Your task to perform on an android device: View the shopping cart on amazon. Add logitech g502 to the cart on amazon, then select checkout. Image 0: 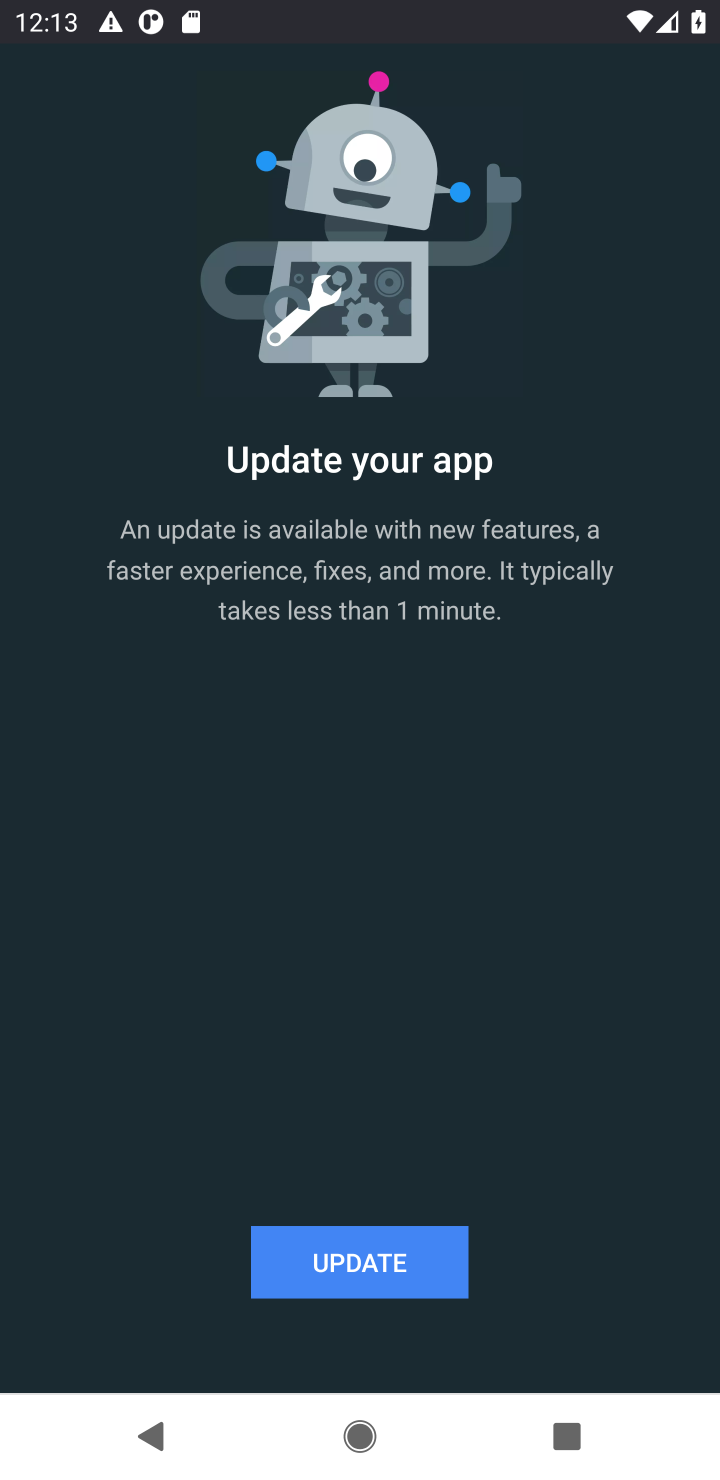
Step 0: press home button
Your task to perform on an android device: View the shopping cart on amazon. Add logitech g502 to the cart on amazon, then select checkout. Image 1: 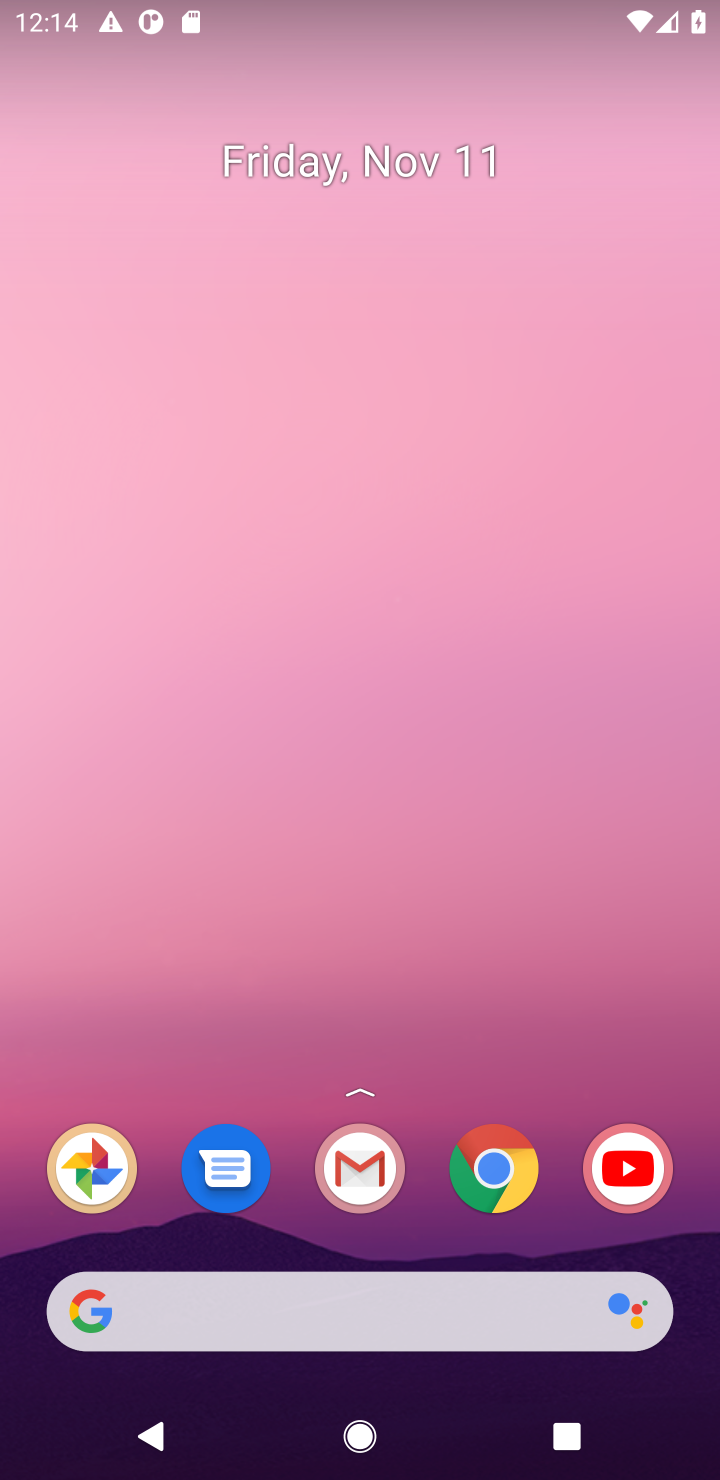
Step 1: click (498, 1179)
Your task to perform on an android device: View the shopping cart on amazon. Add logitech g502 to the cart on amazon, then select checkout. Image 2: 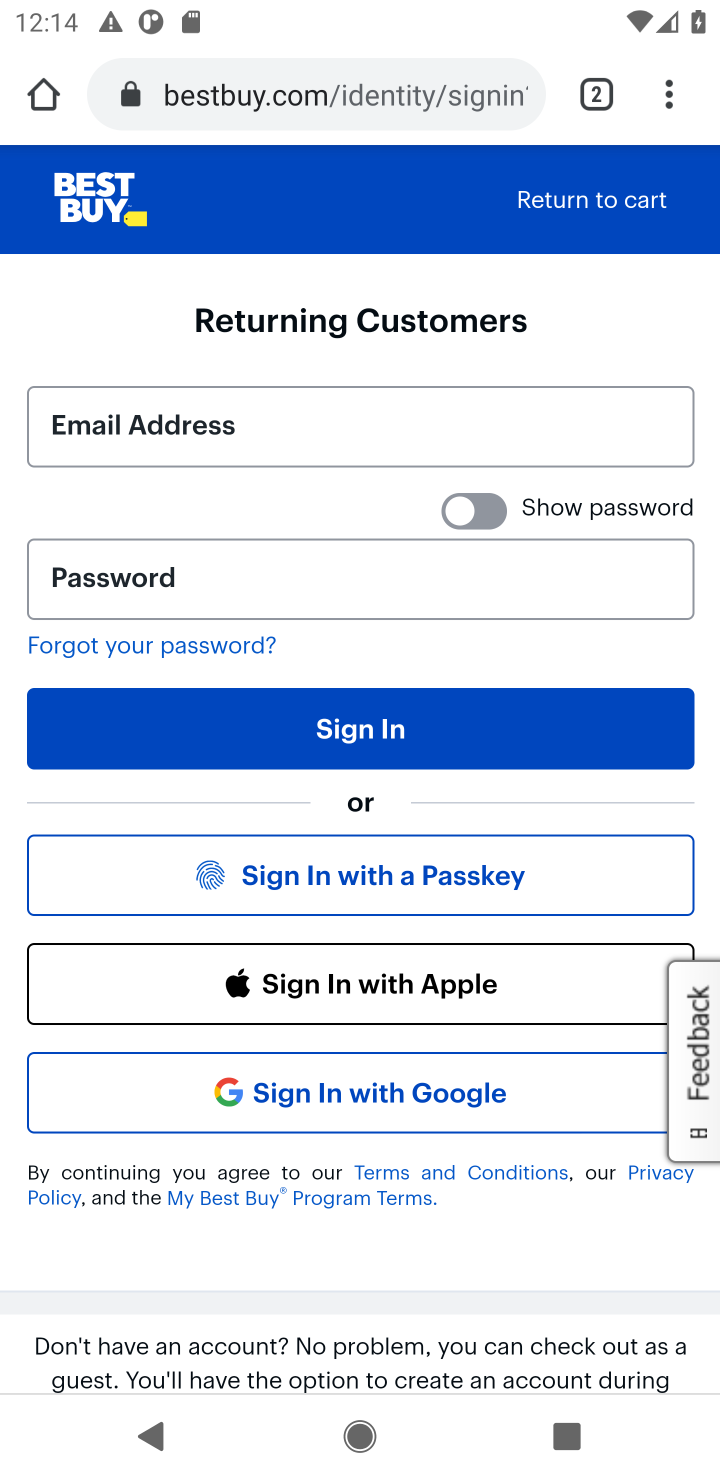
Step 2: click (319, 99)
Your task to perform on an android device: View the shopping cart on amazon. Add logitech g502 to the cart on amazon, then select checkout. Image 3: 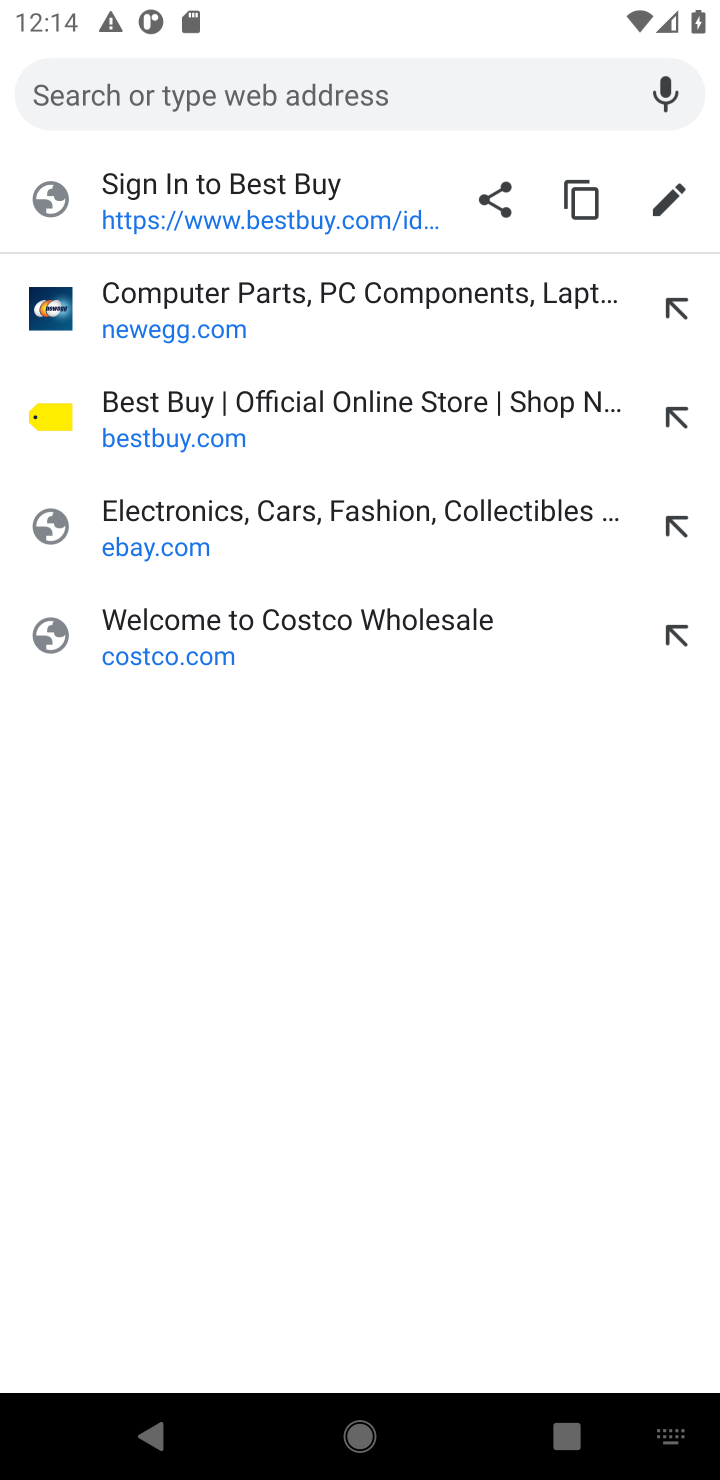
Step 3: type "amazon.com"
Your task to perform on an android device: View the shopping cart on amazon. Add logitech g502 to the cart on amazon, then select checkout. Image 4: 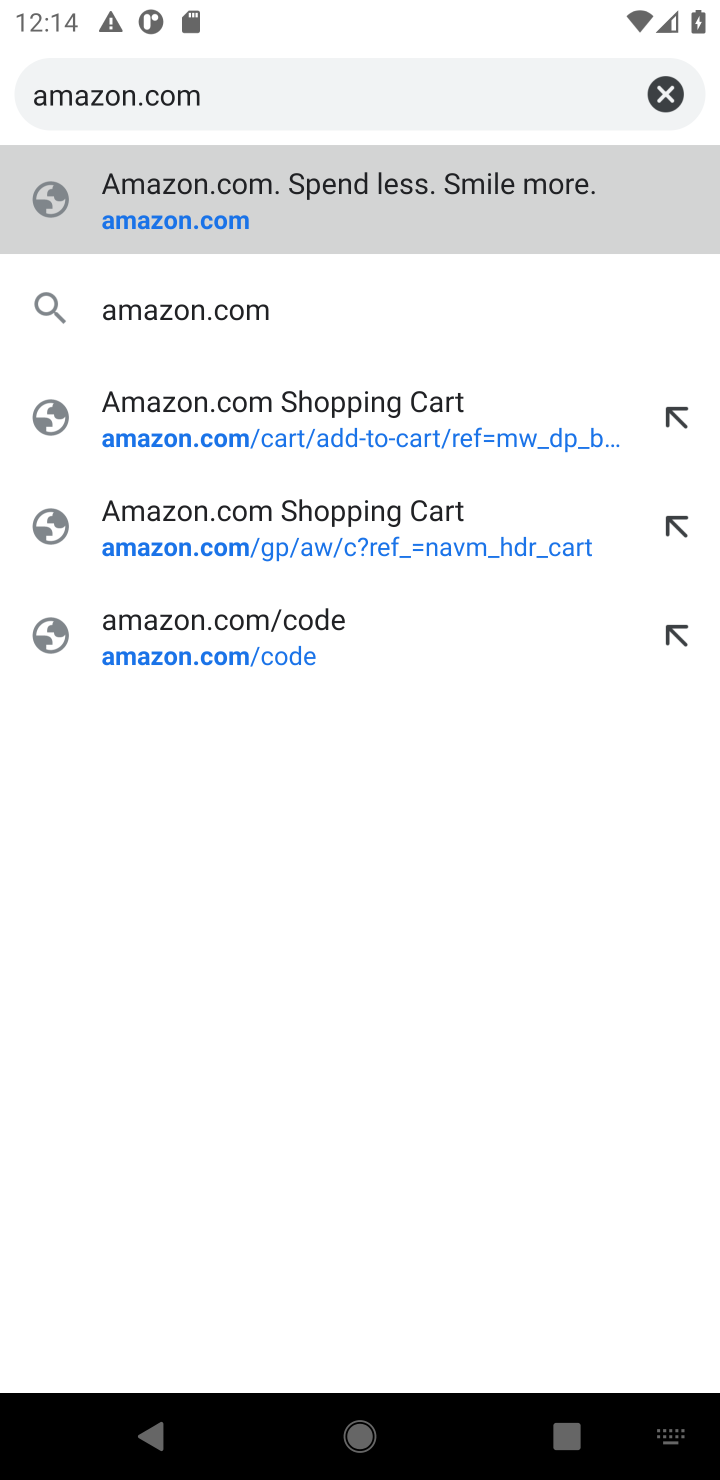
Step 4: click (182, 204)
Your task to perform on an android device: View the shopping cart on amazon. Add logitech g502 to the cart on amazon, then select checkout. Image 5: 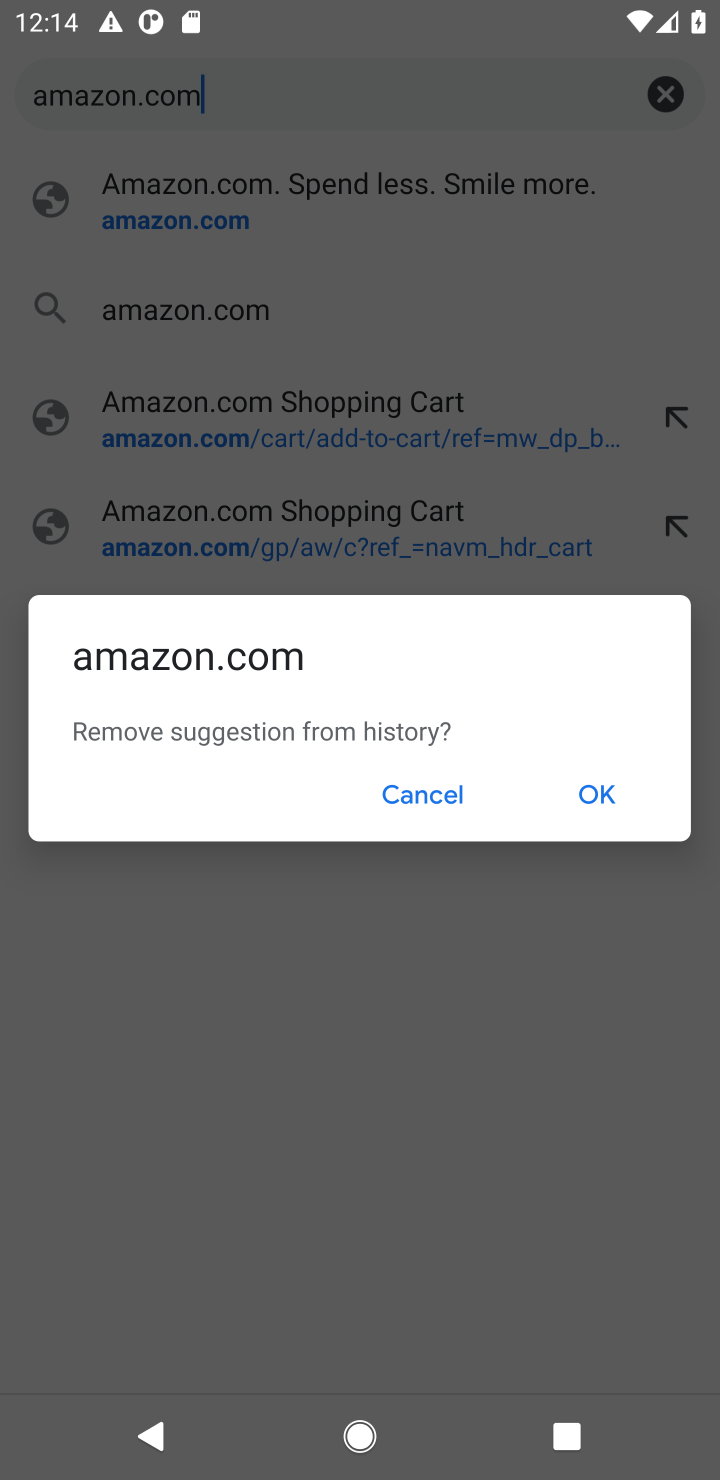
Step 5: click (423, 801)
Your task to perform on an android device: View the shopping cart on amazon. Add logitech g502 to the cart on amazon, then select checkout. Image 6: 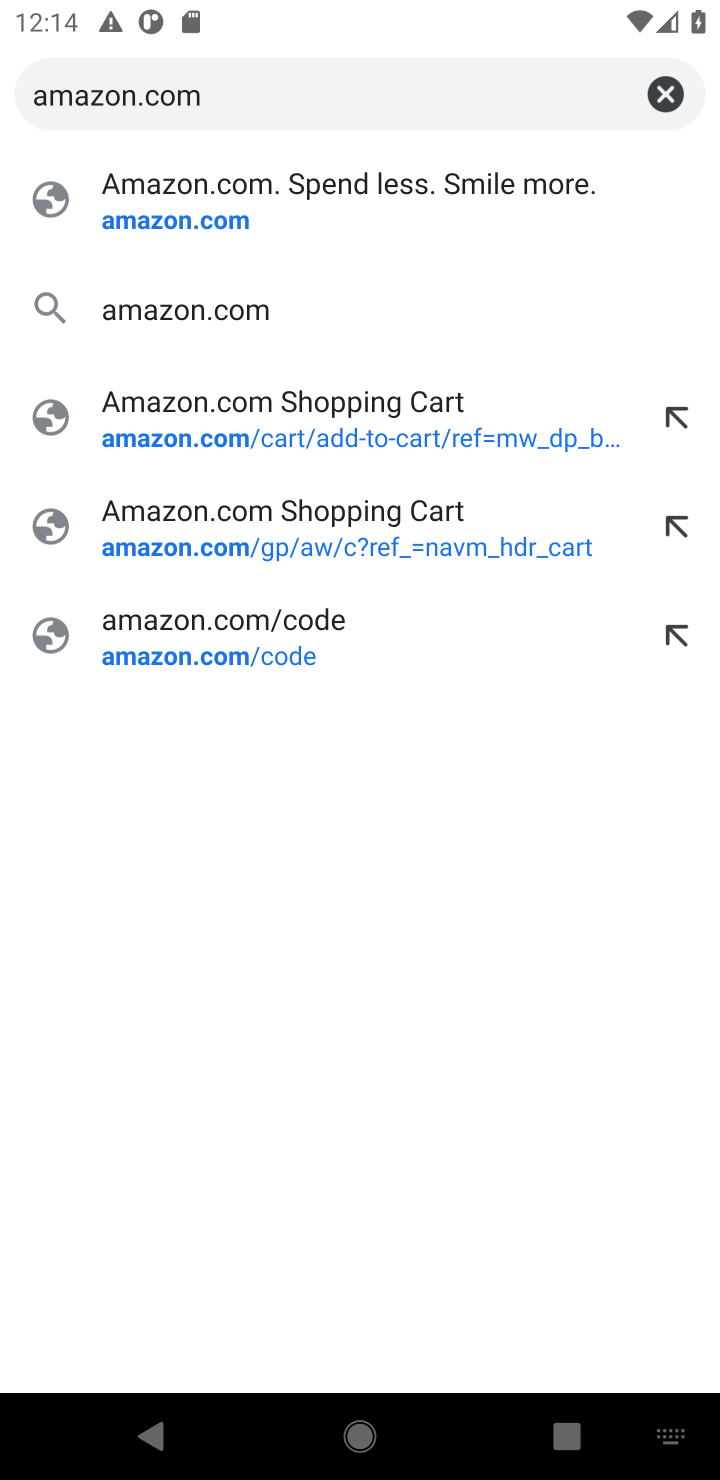
Step 6: click (195, 247)
Your task to perform on an android device: View the shopping cart on amazon. Add logitech g502 to the cart on amazon, then select checkout. Image 7: 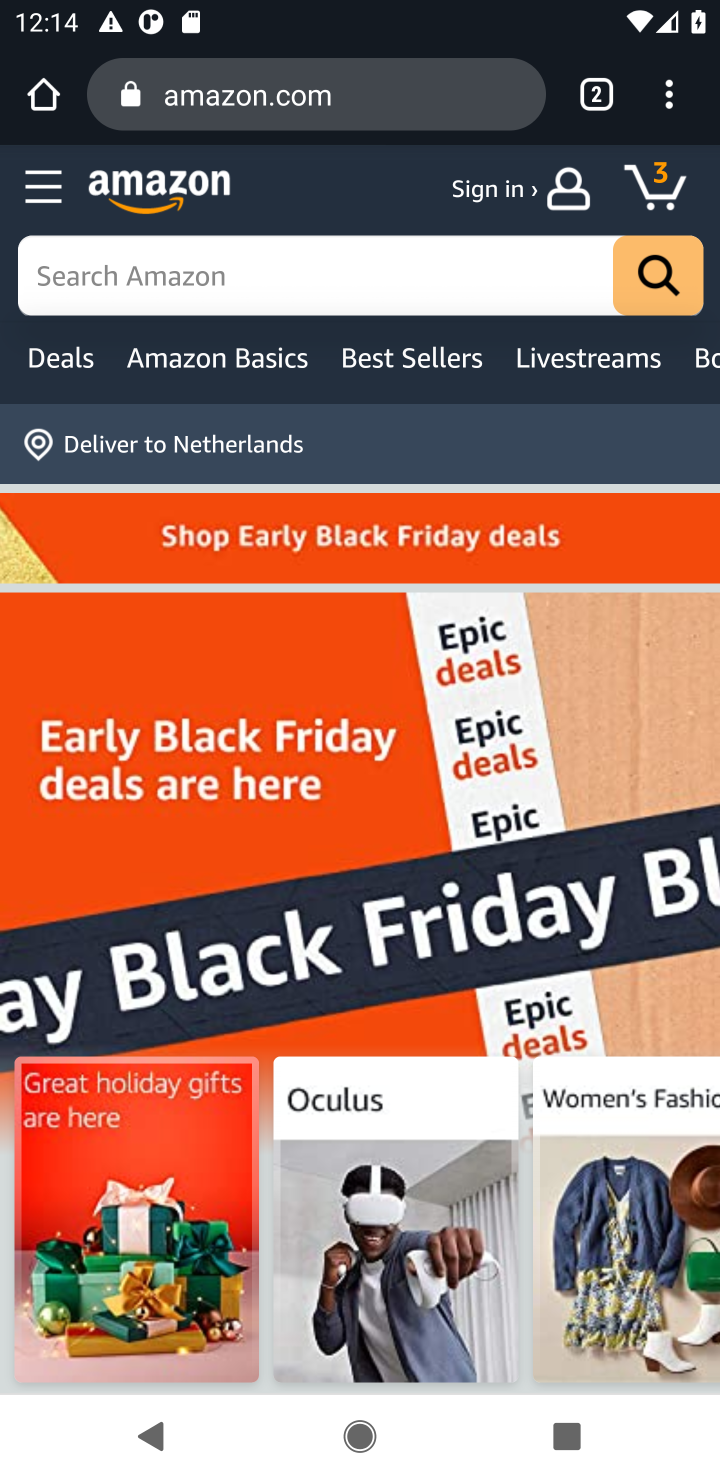
Step 7: click (659, 196)
Your task to perform on an android device: View the shopping cart on amazon. Add logitech g502 to the cart on amazon, then select checkout. Image 8: 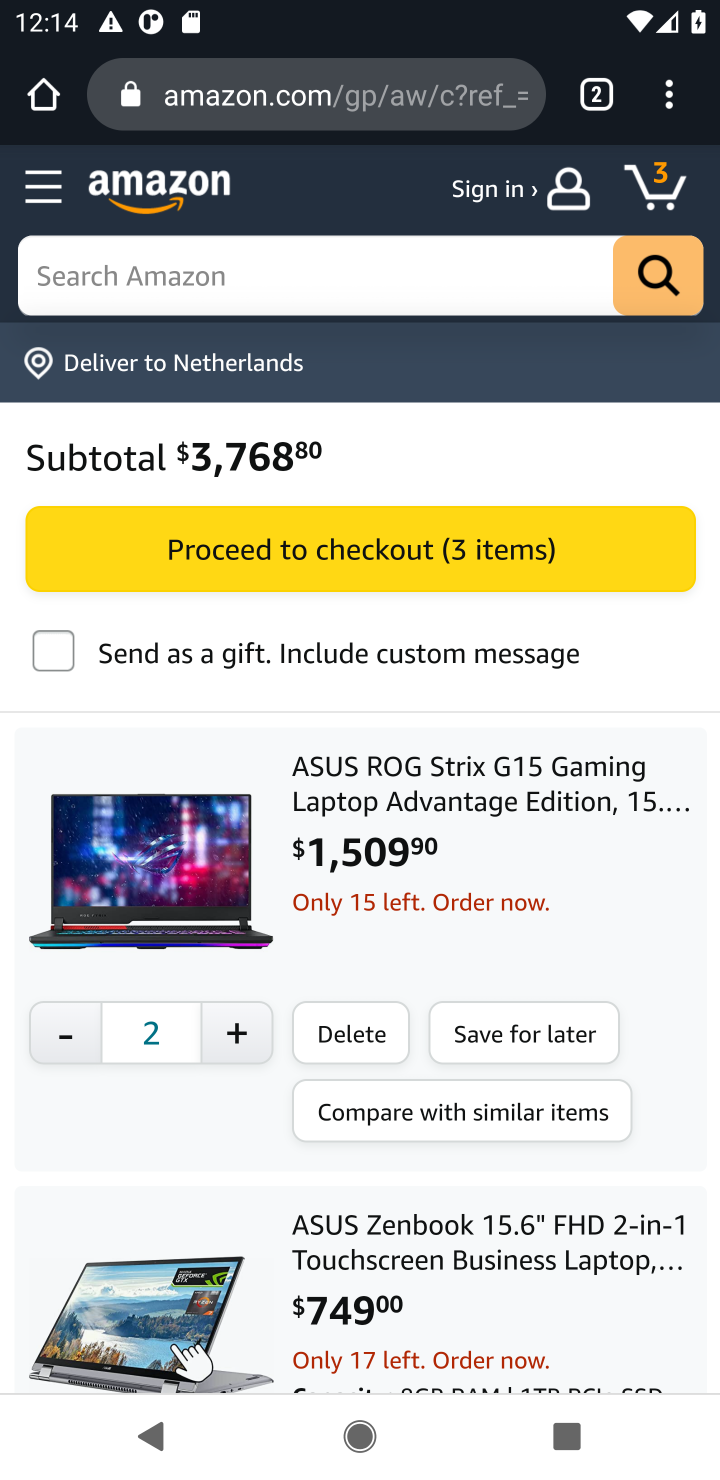
Step 8: click (289, 263)
Your task to perform on an android device: View the shopping cart on amazon. Add logitech g502 to the cart on amazon, then select checkout. Image 9: 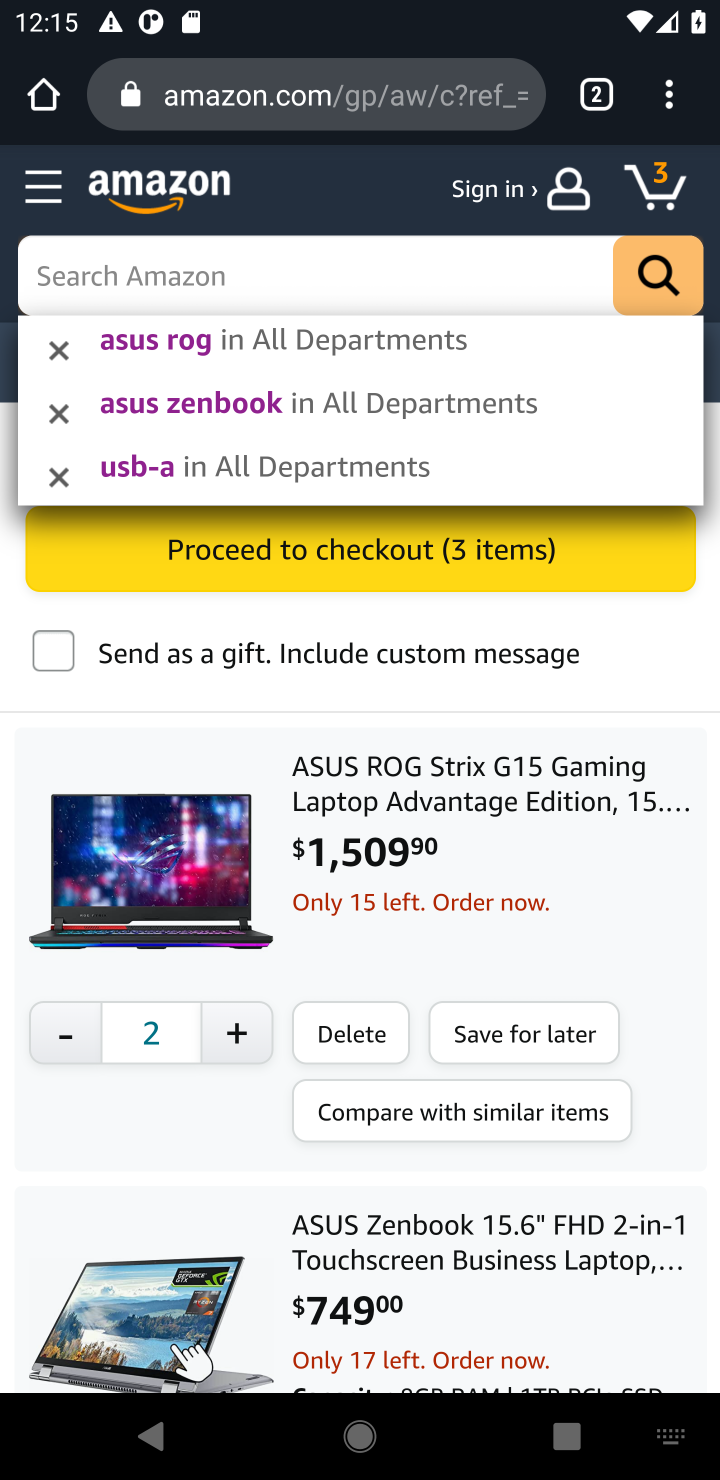
Step 9: type "logitech g502 "
Your task to perform on an android device: View the shopping cart on amazon. Add logitech g502 to the cart on amazon, then select checkout. Image 10: 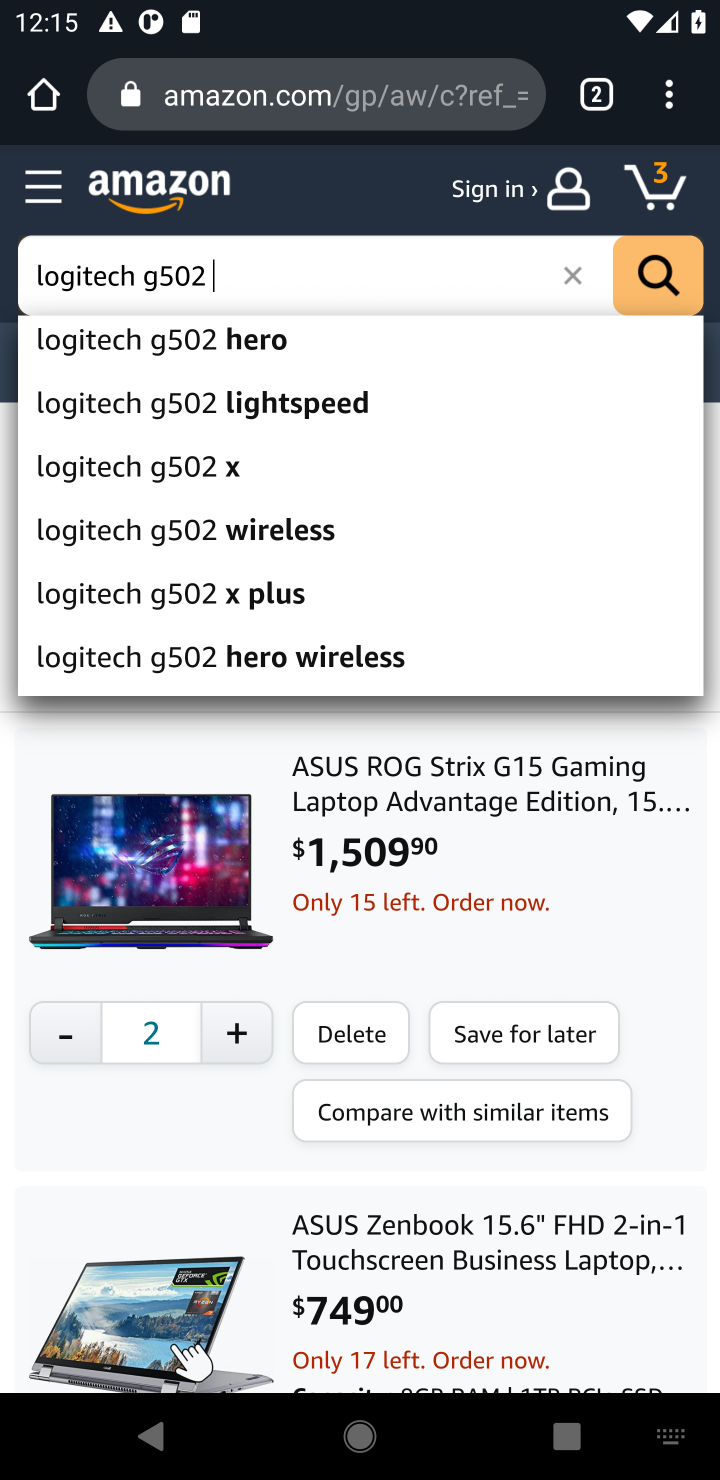
Step 10: click (663, 282)
Your task to perform on an android device: View the shopping cart on amazon. Add logitech g502 to the cart on amazon, then select checkout. Image 11: 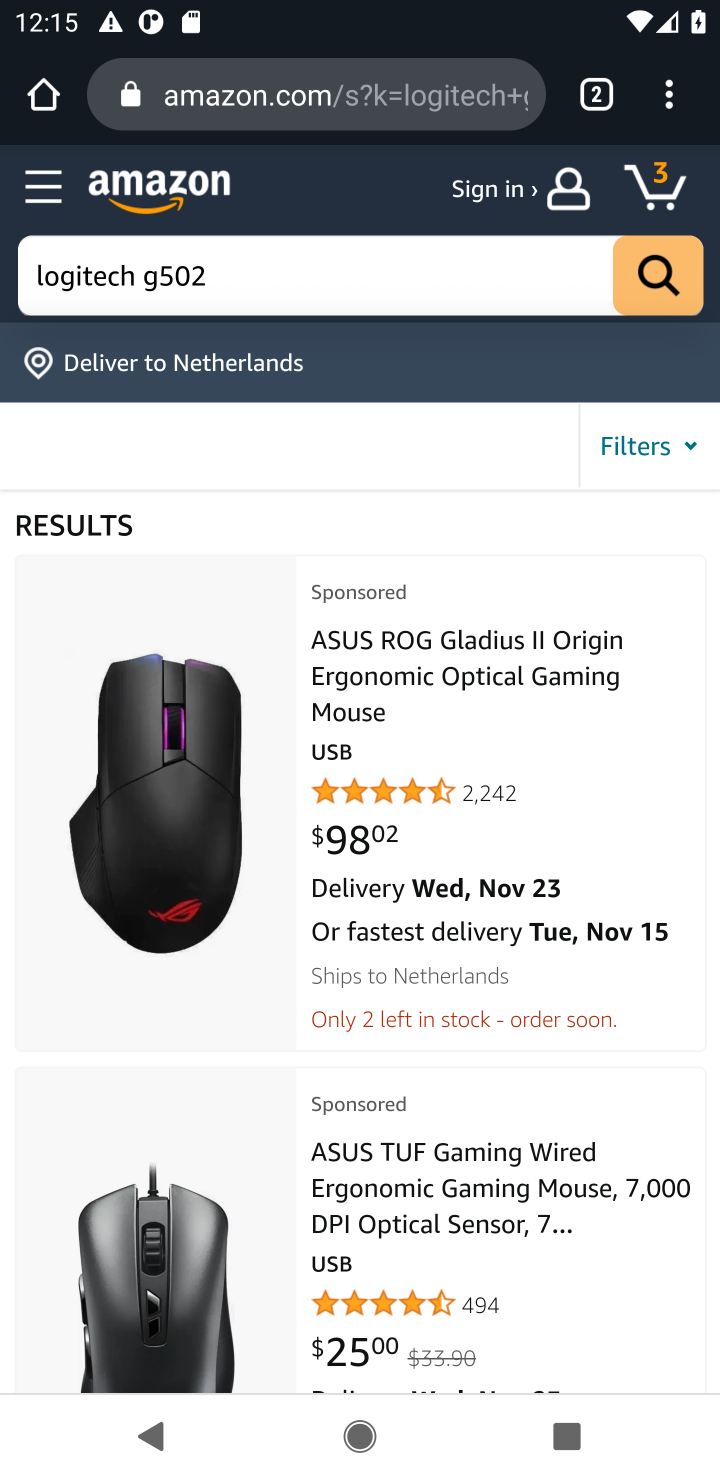
Step 11: drag from (275, 1056) to (271, 625)
Your task to perform on an android device: View the shopping cart on amazon. Add logitech g502 to the cart on amazon, then select checkout. Image 12: 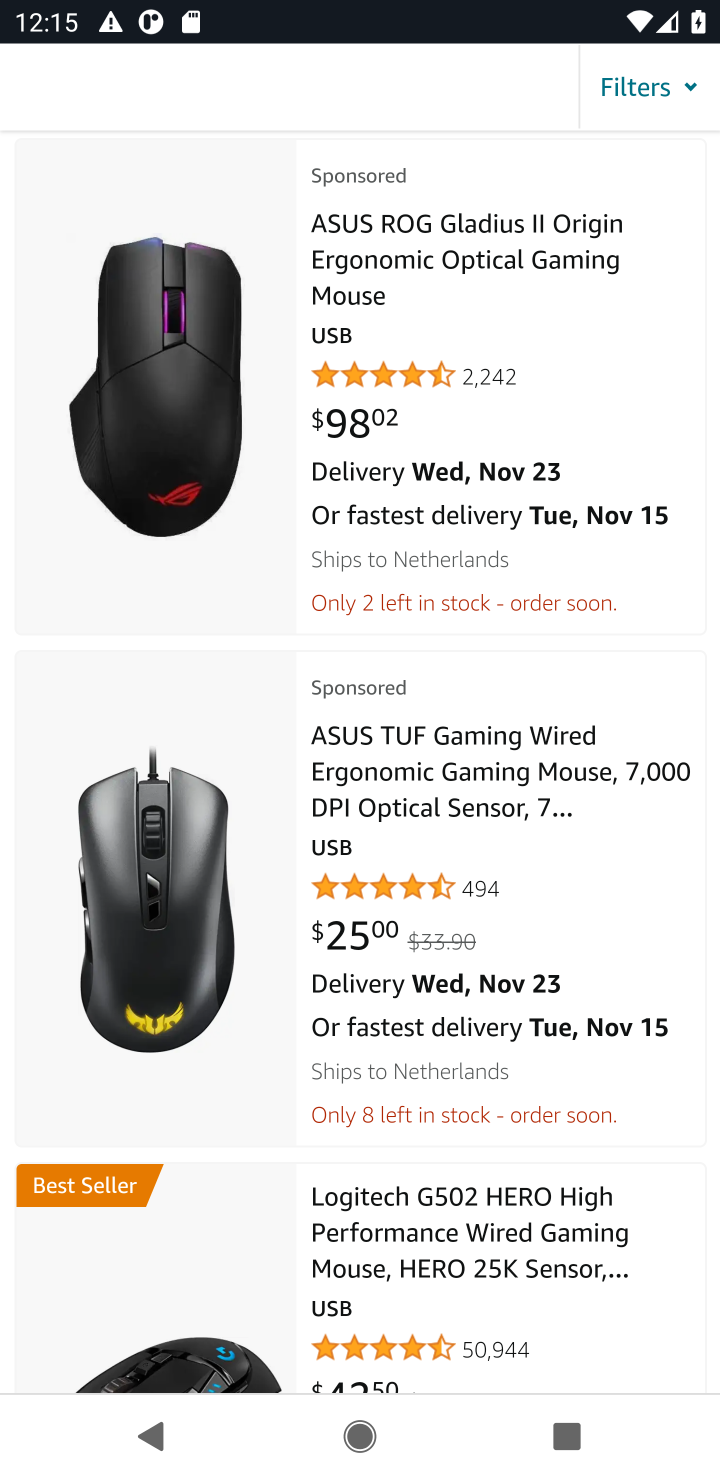
Step 12: drag from (259, 931) to (275, 611)
Your task to perform on an android device: View the shopping cart on amazon. Add logitech g502 to the cart on amazon, then select checkout. Image 13: 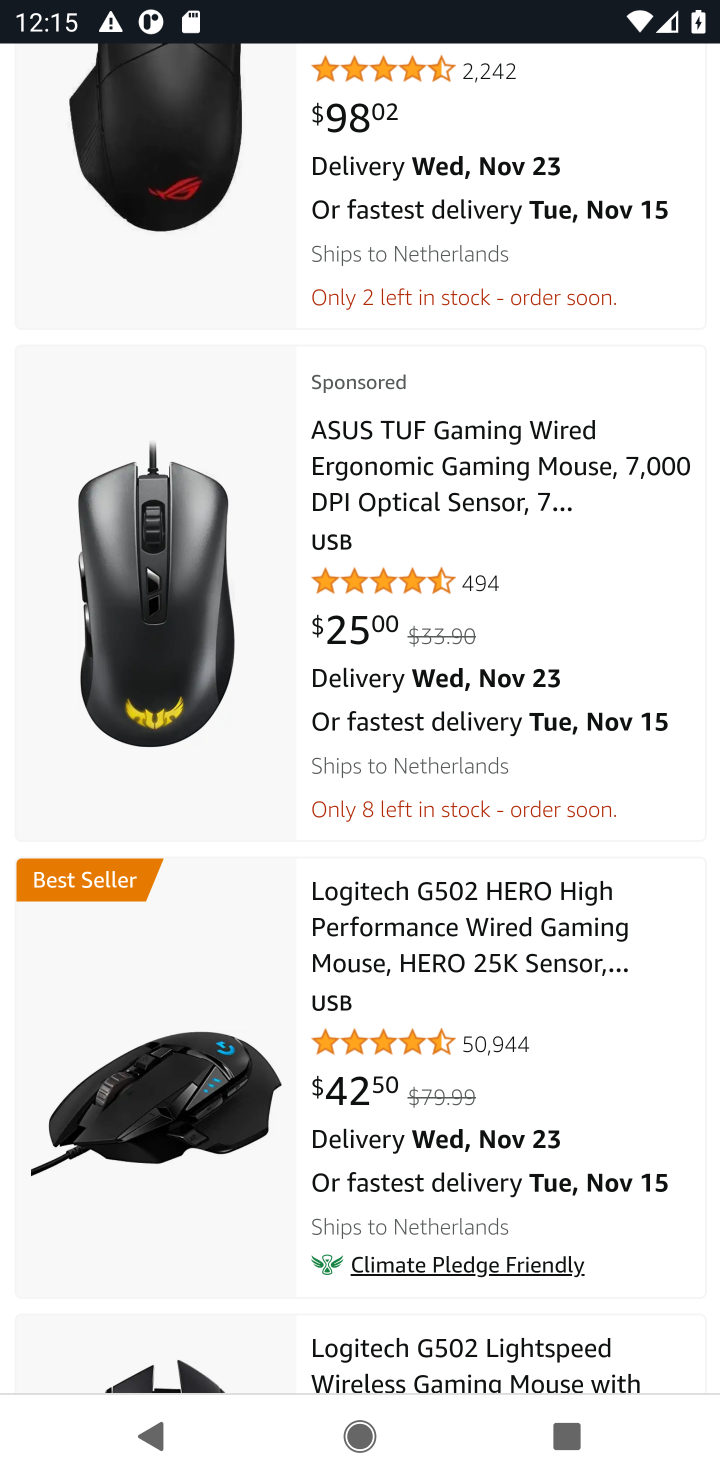
Step 13: click (184, 1042)
Your task to perform on an android device: View the shopping cart on amazon. Add logitech g502 to the cart on amazon, then select checkout. Image 14: 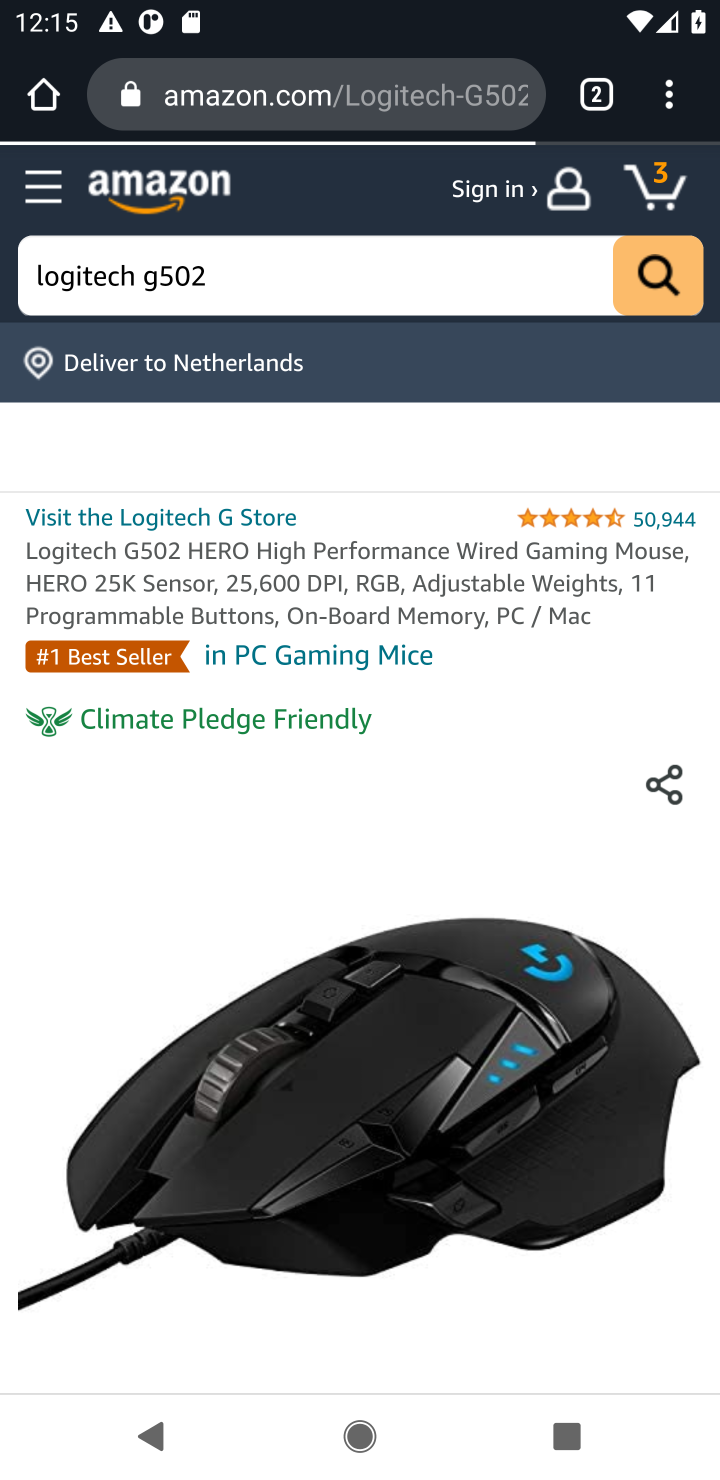
Step 14: drag from (259, 1095) to (273, 672)
Your task to perform on an android device: View the shopping cart on amazon. Add logitech g502 to the cart on amazon, then select checkout. Image 15: 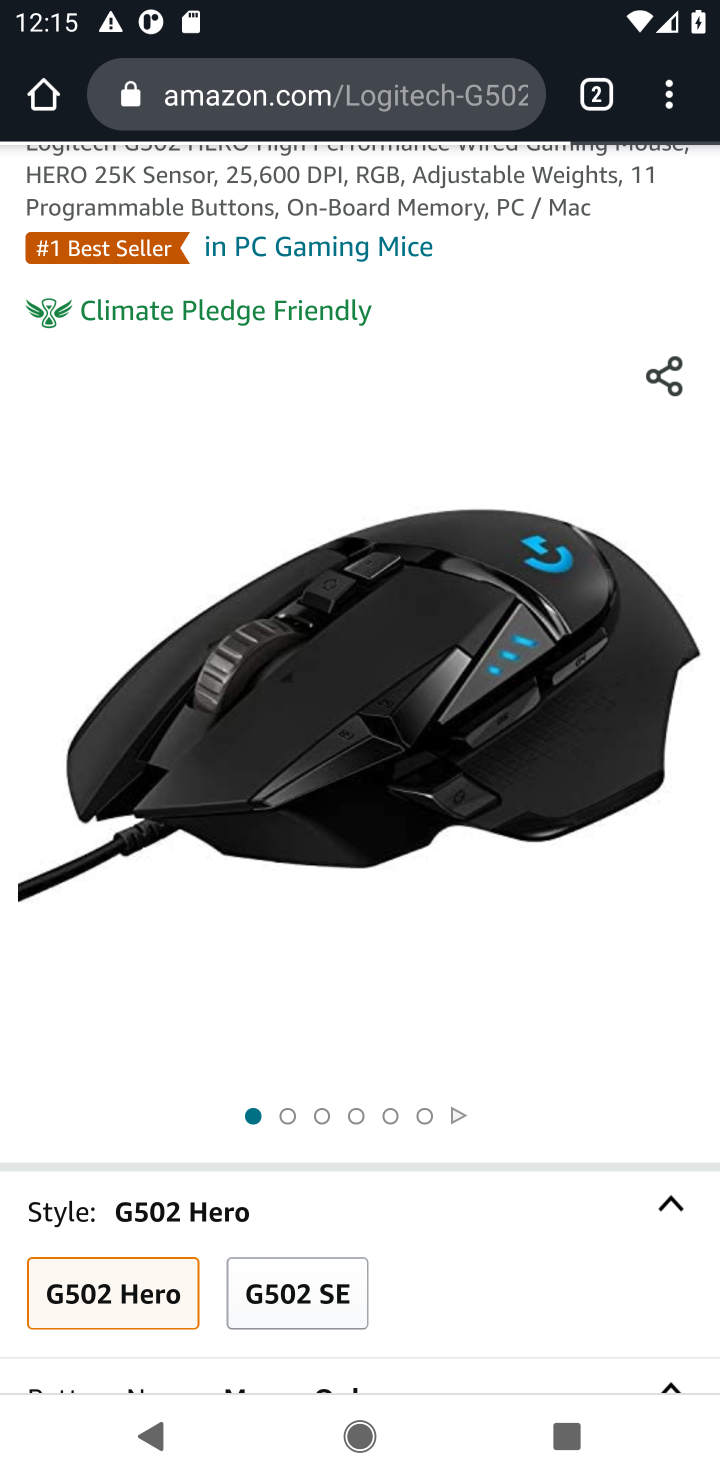
Step 15: drag from (491, 1153) to (516, 535)
Your task to perform on an android device: View the shopping cart on amazon. Add logitech g502 to the cart on amazon, then select checkout. Image 16: 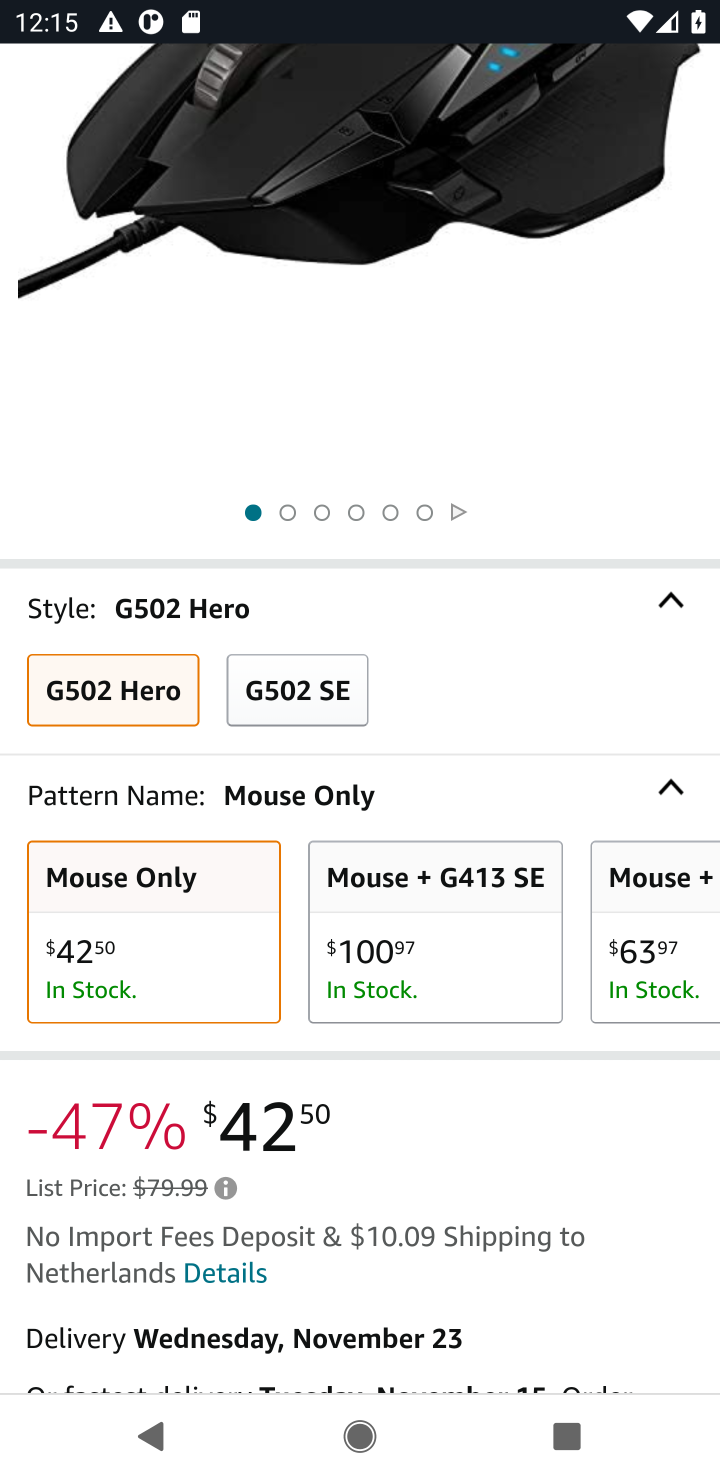
Step 16: drag from (456, 1059) to (472, 487)
Your task to perform on an android device: View the shopping cart on amazon. Add logitech g502 to the cart on amazon, then select checkout. Image 17: 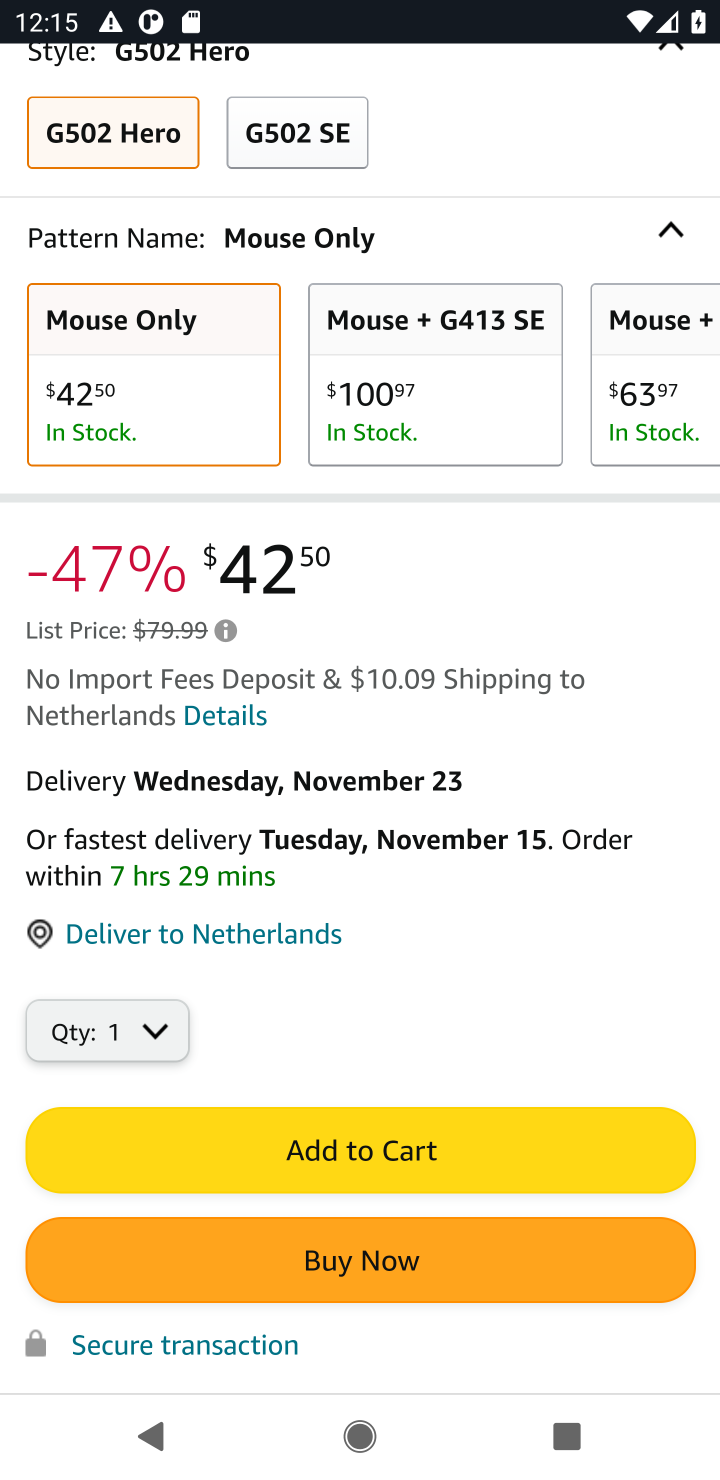
Step 17: click (358, 1141)
Your task to perform on an android device: View the shopping cart on amazon. Add logitech g502 to the cart on amazon, then select checkout. Image 18: 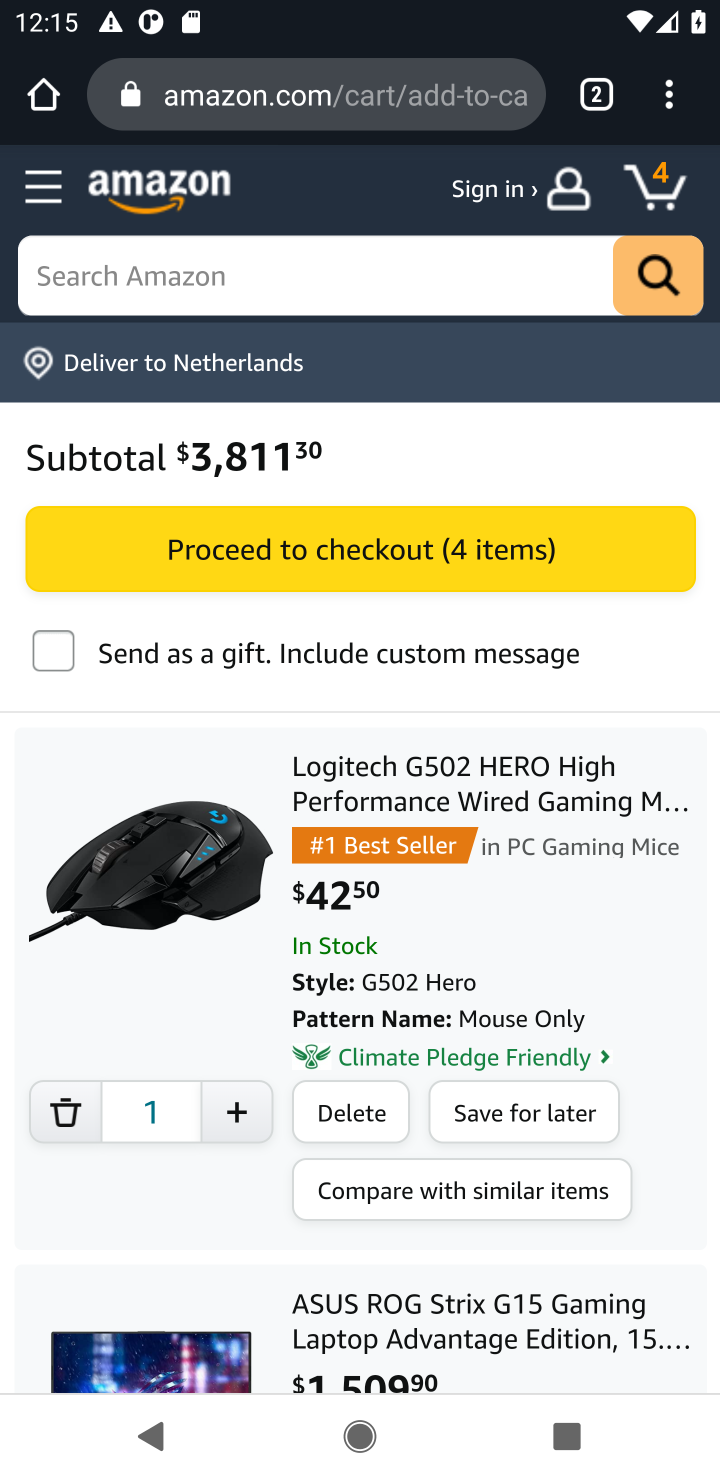
Step 18: click (302, 556)
Your task to perform on an android device: View the shopping cart on amazon. Add logitech g502 to the cart on amazon, then select checkout. Image 19: 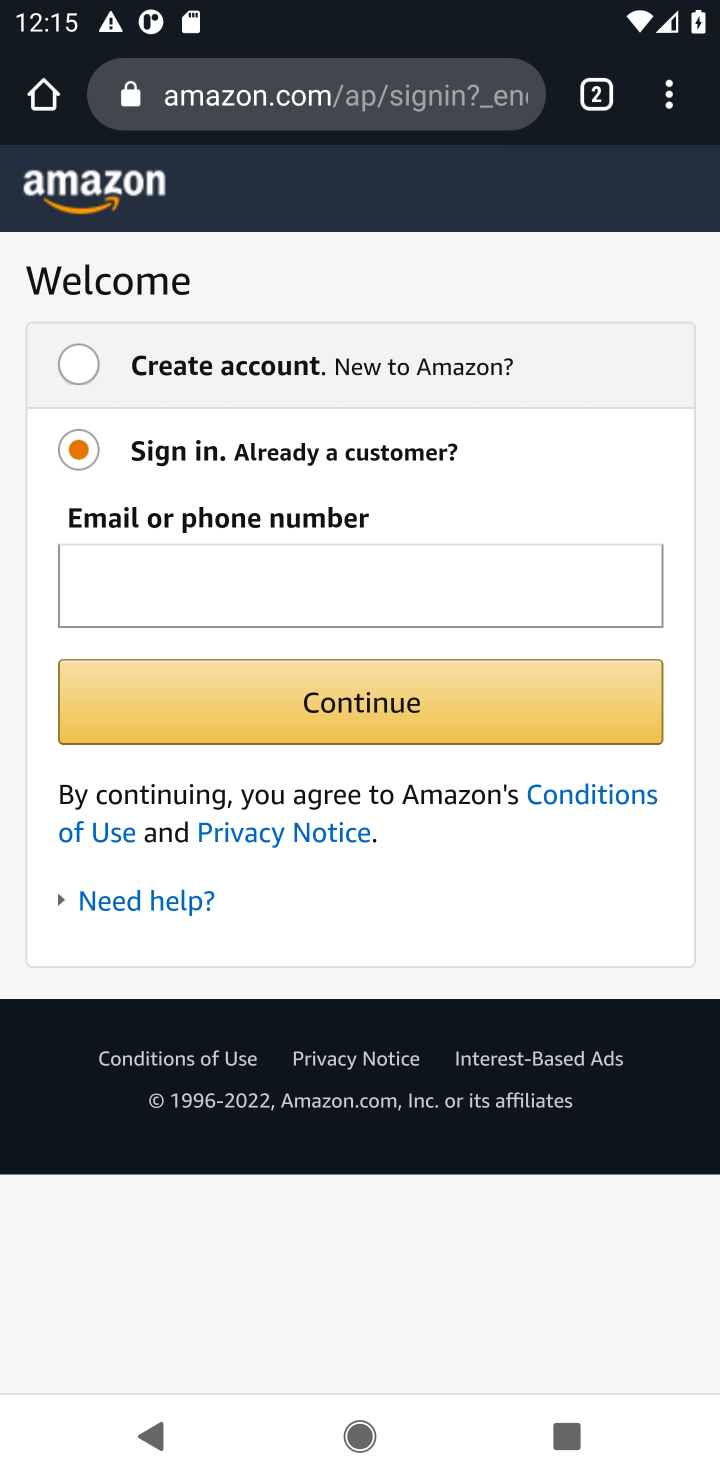
Step 19: task complete